Your task to perform on an android device: change keyboard looks Image 0: 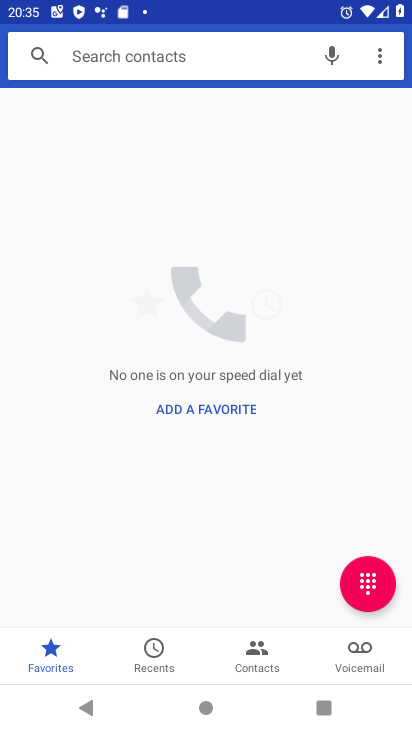
Step 0: press back button
Your task to perform on an android device: change keyboard looks Image 1: 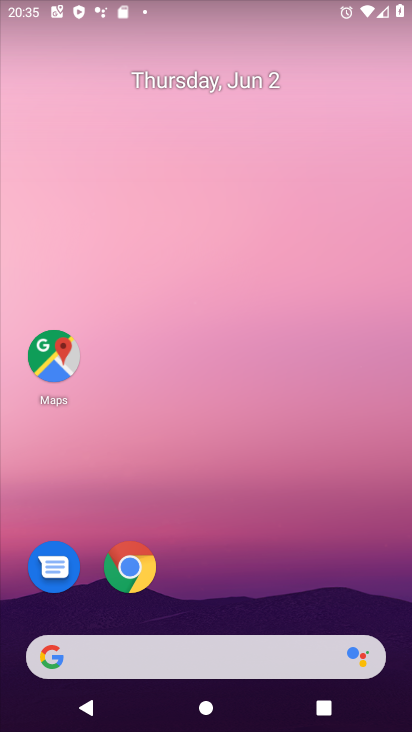
Step 1: drag from (279, 573) to (209, 153)
Your task to perform on an android device: change keyboard looks Image 2: 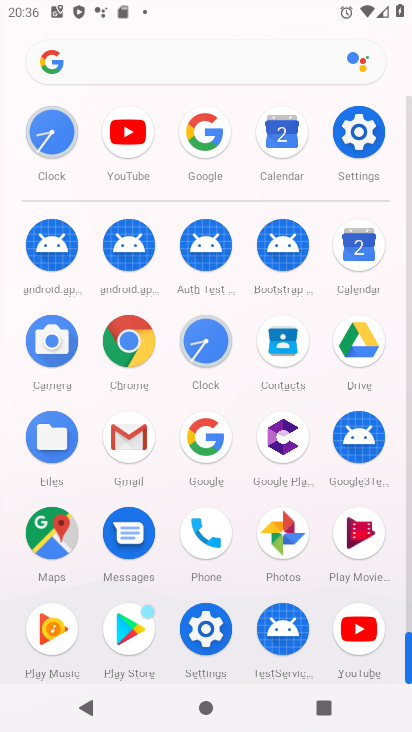
Step 2: click (360, 131)
Your task to perform on an android device: change keyboard looks Image 3: 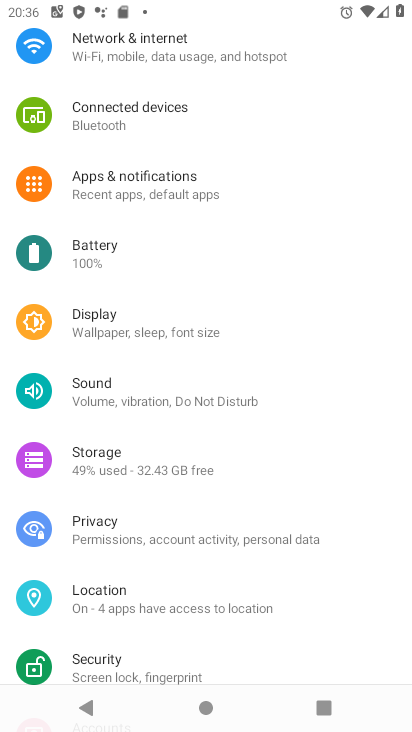
Step 3: drag from (175, 369) to (199, 296)
Your task to perform on an android device: change keyboard looks Image 4: 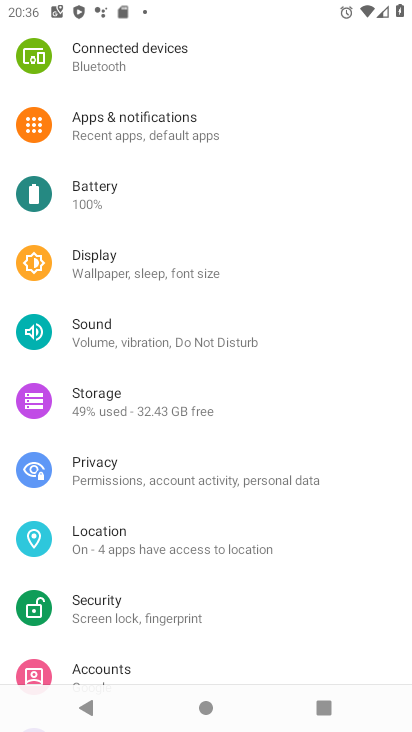
Step 4: drag from (167, 318) to (200, 261)
Your task to perform on an android device: change keyboard looks Image 5: 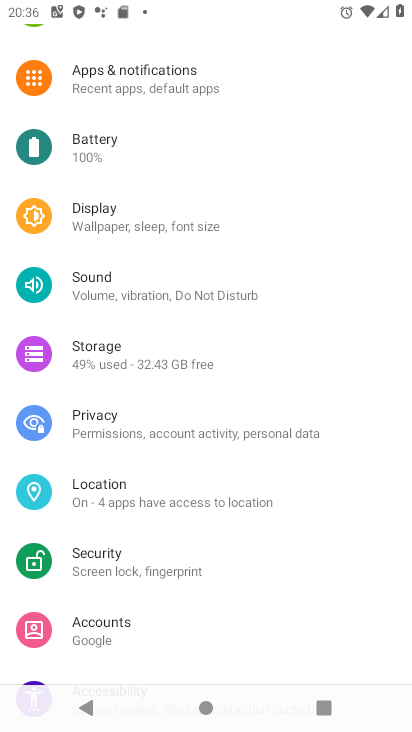
Step 5: drag from (142, 329) to (186, 255)
Your task to perform on an android device: change keyboard looks Image 6: 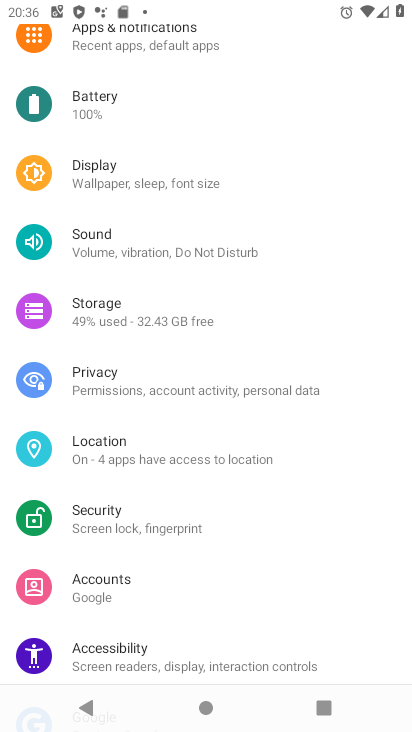
Step 6: drag from (157, 409) to (200, 332)
Your task to perform on an android device: change keyboard looks Image 7: 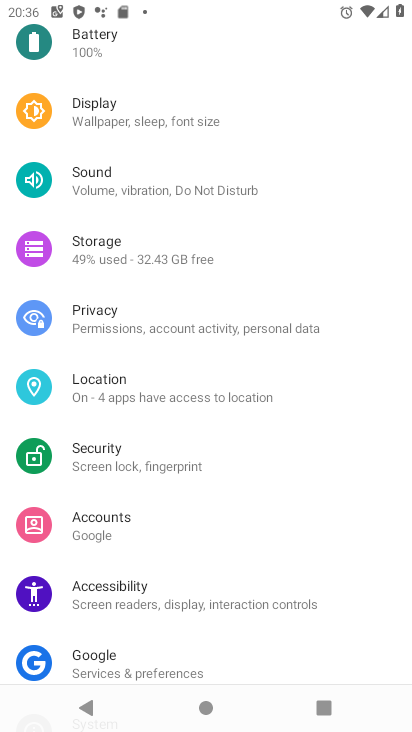
Step 7: drag from (152, 485) to (176, 422)
Your task to perform on an android device: change keyboard looks Image 8: 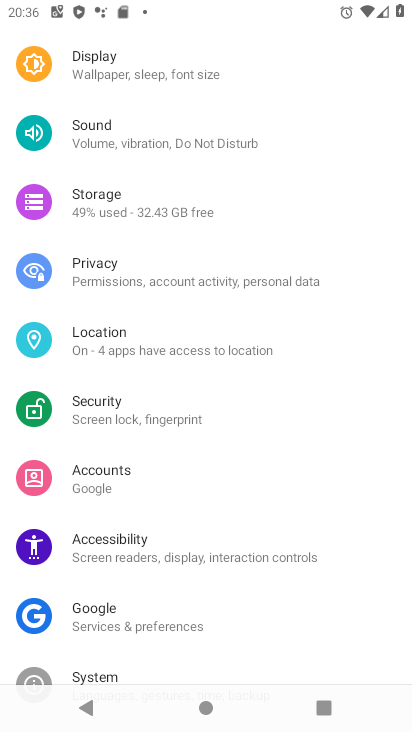
Step 8: drag from (174, 508) to (231, 434)
Your task to perform on an android device: change keyboard looks Image 9: 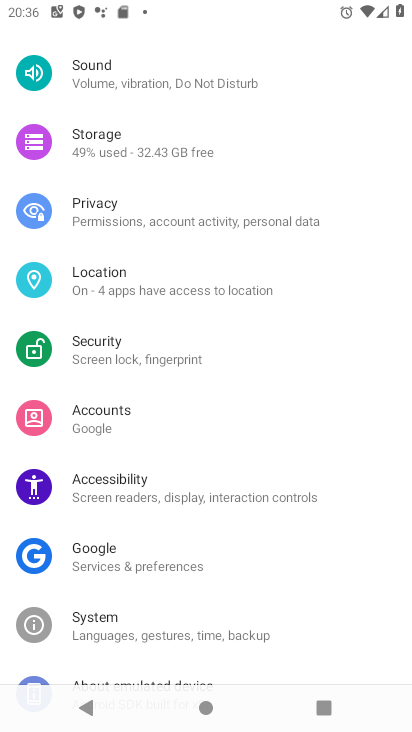
Step 9: click (168, 632)
Your task to perform on an android device: change keyboard looks Image 10: 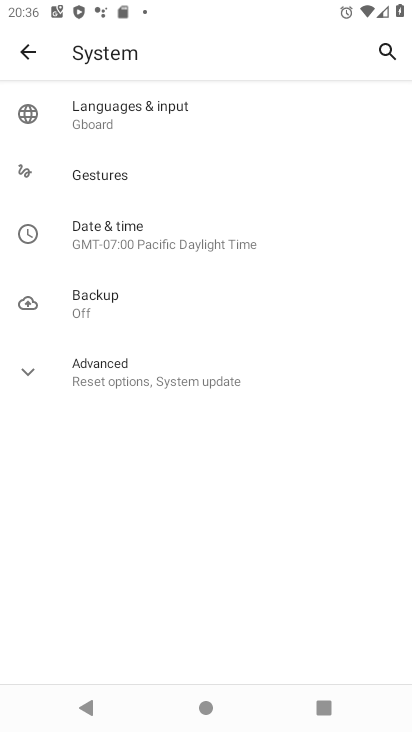
Step 10: click (149, 113)
Your task to perform on an android device: change keyboard looks Image 11: 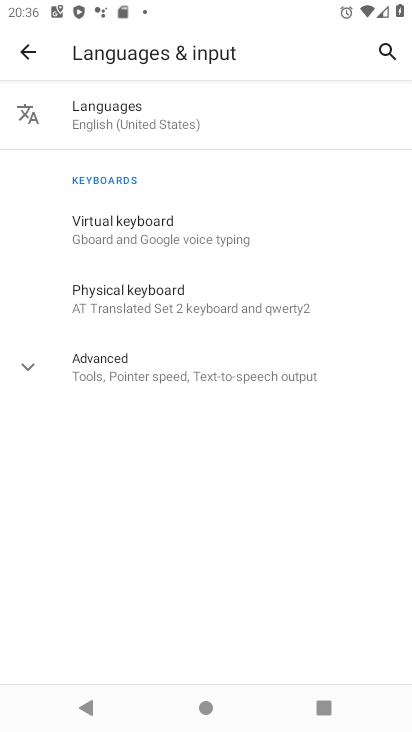
Step 11: click (139, 238)
Your task to perform on an android device: change keyboard looks Image 12: 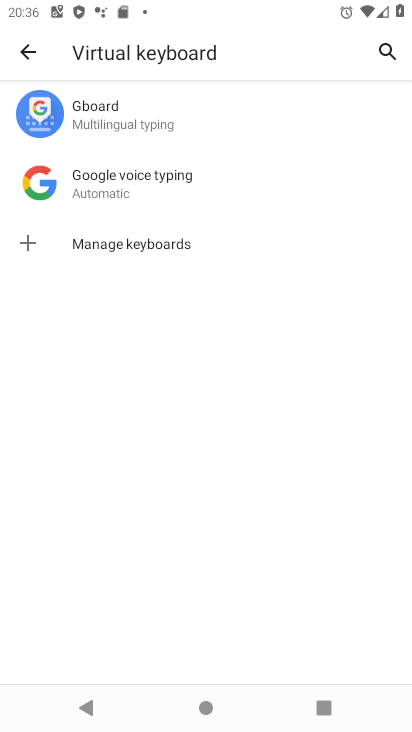
Step 12: click (142, 128)
Your task to perform on an android device: change keyboard looks Image 13: 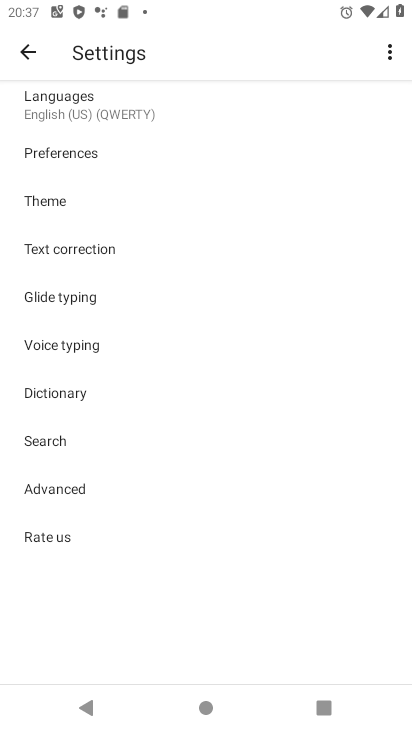
Step 13: click (55, 198)
Your task to perform on an android device: change keyboard looks Image 14: 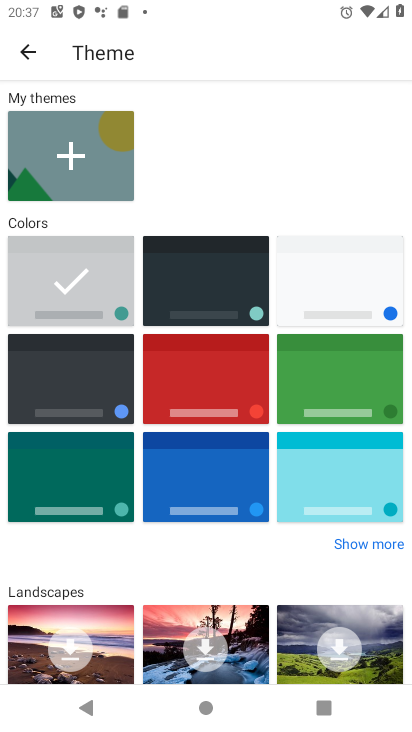
Step 14: click (352, 474)
Your task to perform on an android device: change keyboard looks Image 15: 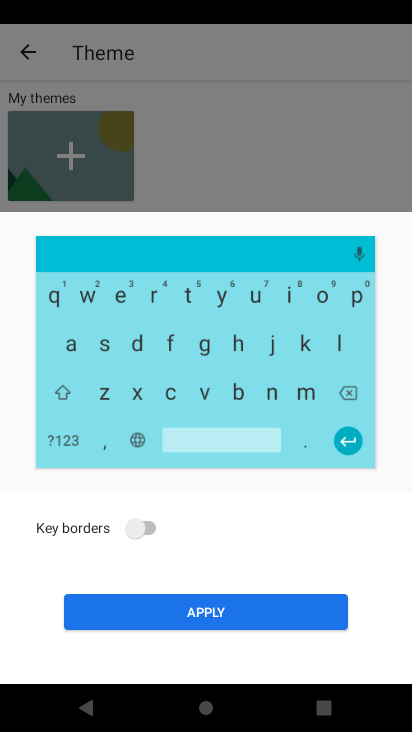
Step 15: click (144, 524)
Your task to perform on an android device: change keyboard looks Image 16: 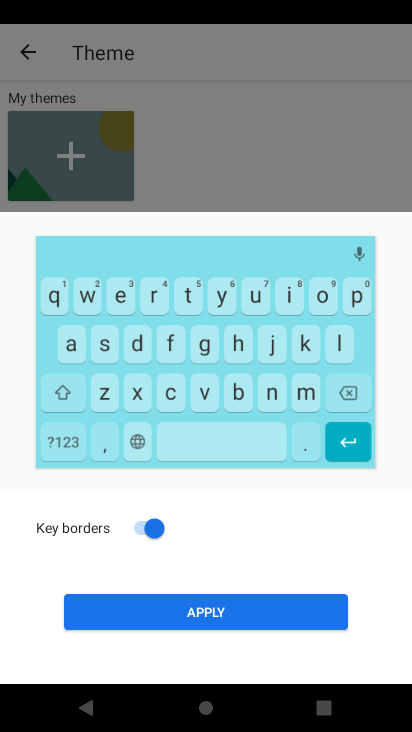
Step 16: click (205, 616)
Your task to perform on an android device: change keyboard looks Image 17: 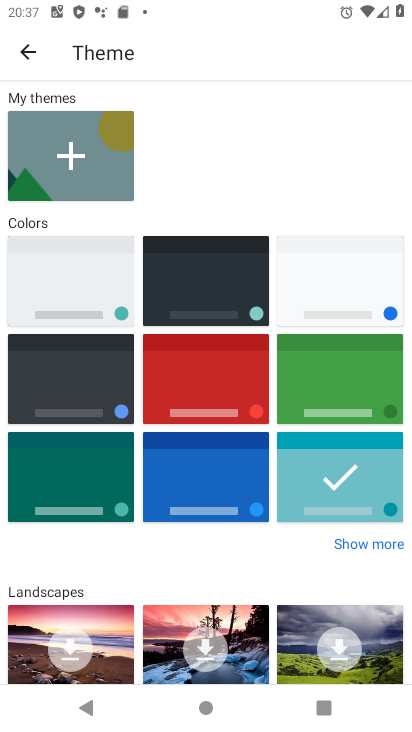
Step 17: task complete